Your task to perform on an android device: create a new album in the google photos Image 0: 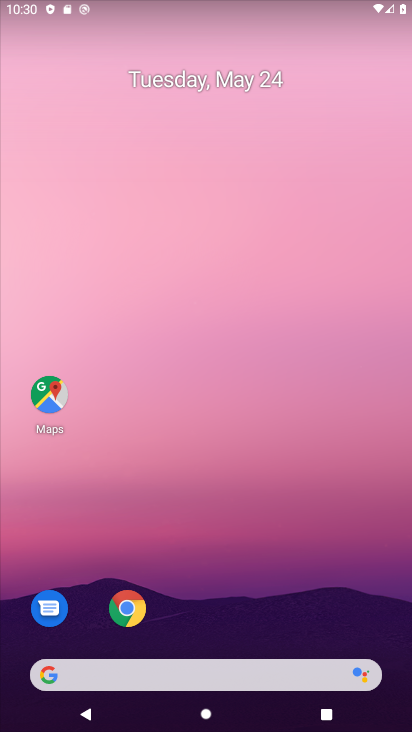
Step 0: drag from (388, 628) to (299, 152)
Your task to perform on an android device: create a new album in the google photos Image 1: 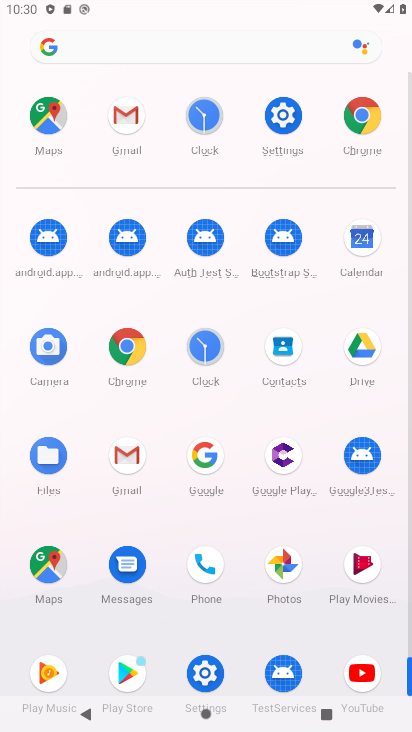
Step 1: click (283, 562)
Your task to perform on an android device: create a new album in the google photos Image 2: 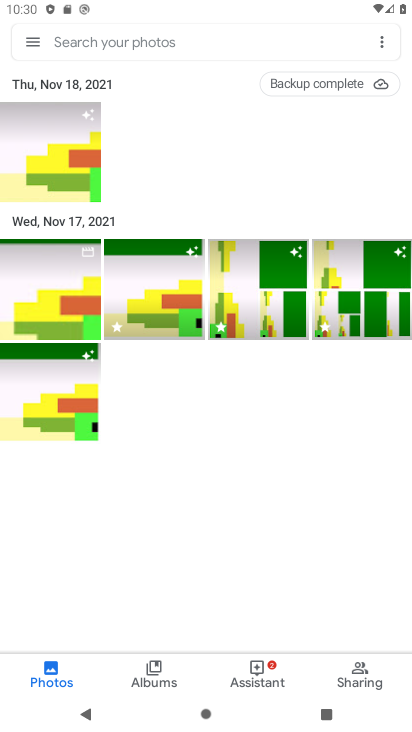
Step 2: click (149, 668)
Your task to perform on an android device: create a new album in the google photos Image 3: 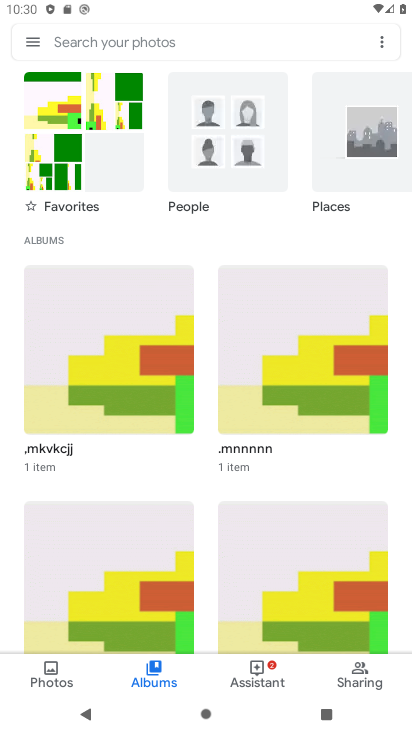
Step 3: drag from (207, 509) to (192, 66)
Your task to perform on an android device: create a new album in the google photos Image 4: 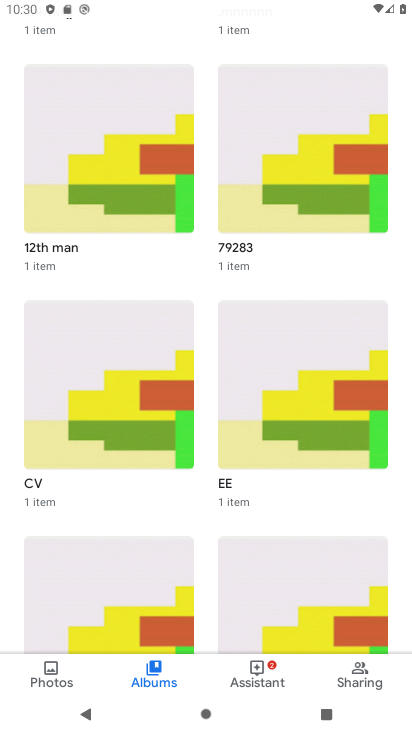
Step 4: click (49, 668)
Your task to perform on an android device: create a new album in the google photos Image 5: 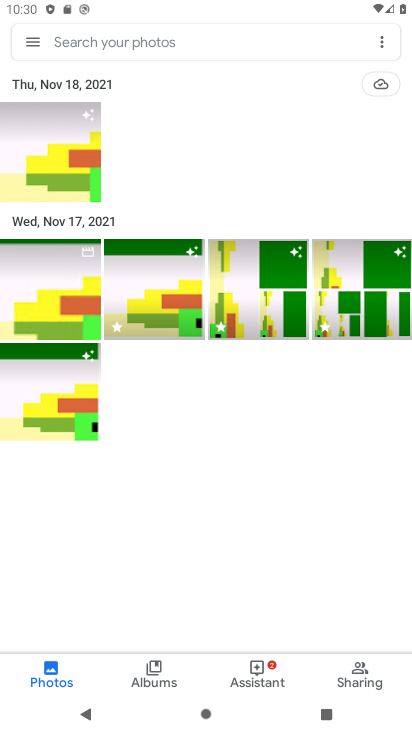
Step 5: click (381, 41)
Your task to perform on an android device: create a new album in the google photos Image 6: 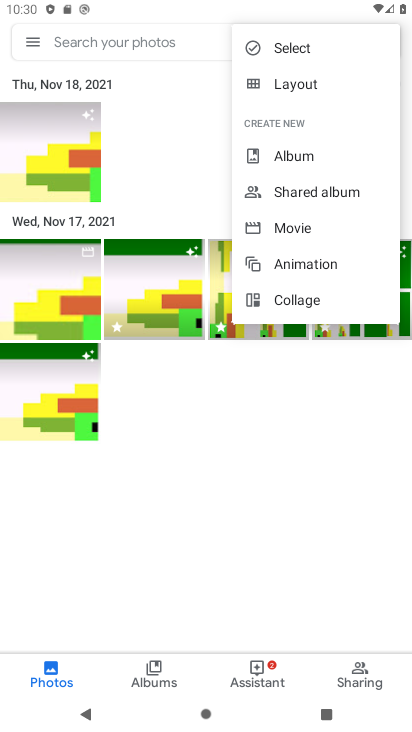
Step 6: click (293, 155)
Your task to perform on an android device: create a new album in the google photos Image 7: 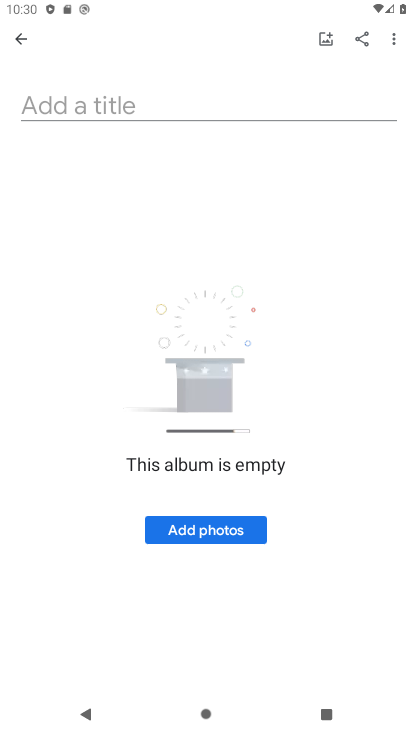
Step 7: click (56, 104)
Your task to perform on an android device: create a new album in the google photos Image 8: 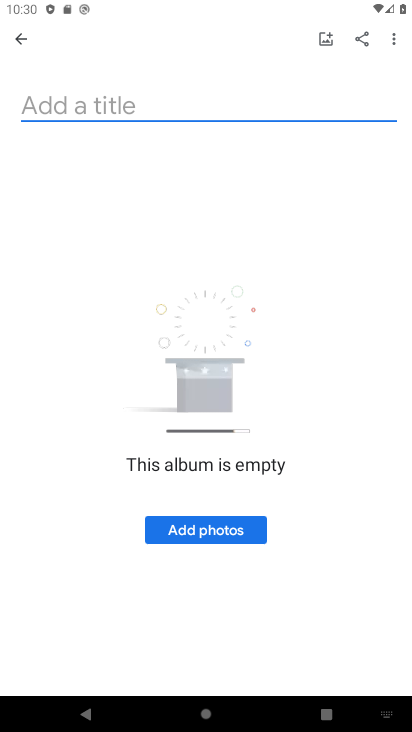
Step 8: type "hjjfdhf"
Your task to perform on an android device: create a new album in the google photos Image 9: 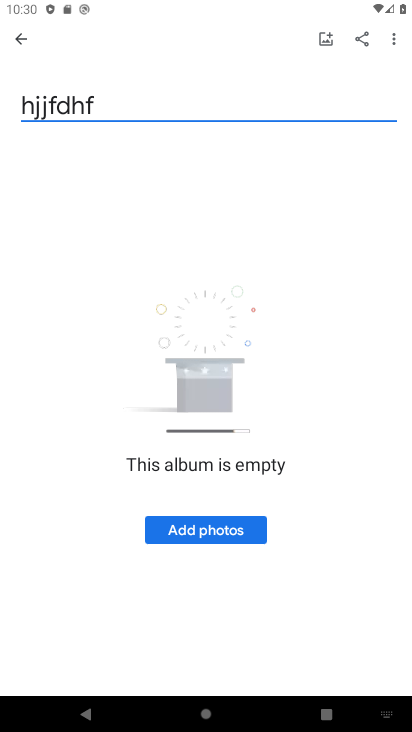
Step 9: click (204, 524)
Your task to perform on an android device: create a new album in the google photos Image 10: 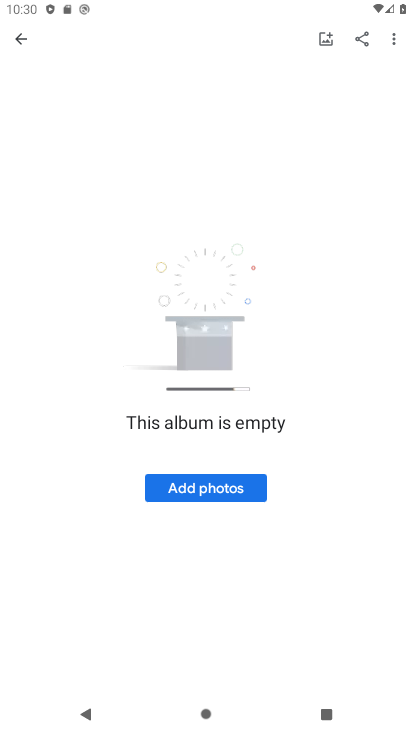
Step 10: click (202, 484)
Your task to perform on an android device: create a new album in the google photos Image 11: 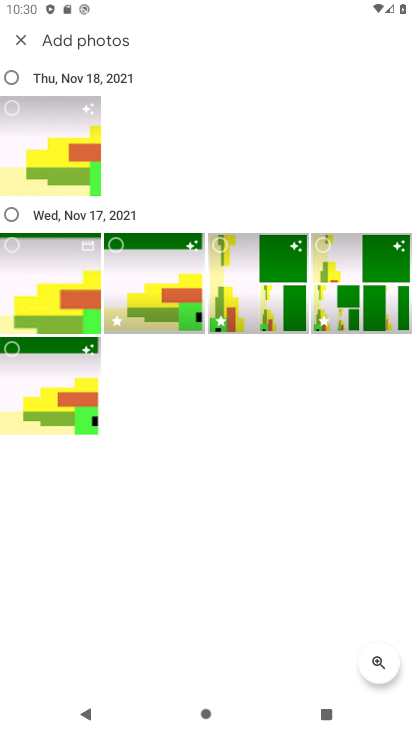
Step 11: click (9, 248)
Your task to perform on an android device: create a new album in the google photos Image 12: 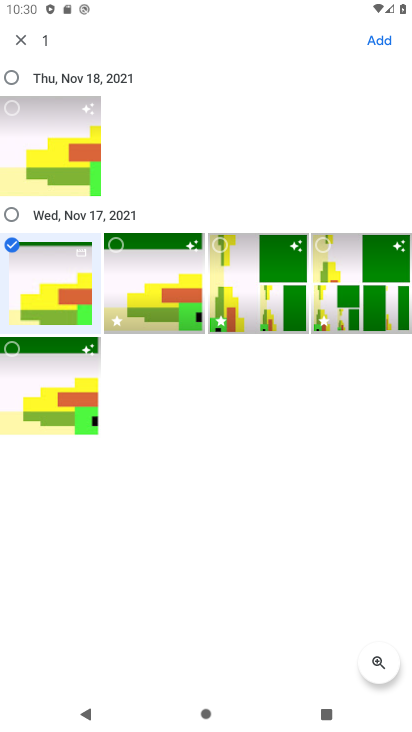
Step 12: click (120, 245)
Your task to perform on an android device: create a new album in the google photos Image 13: 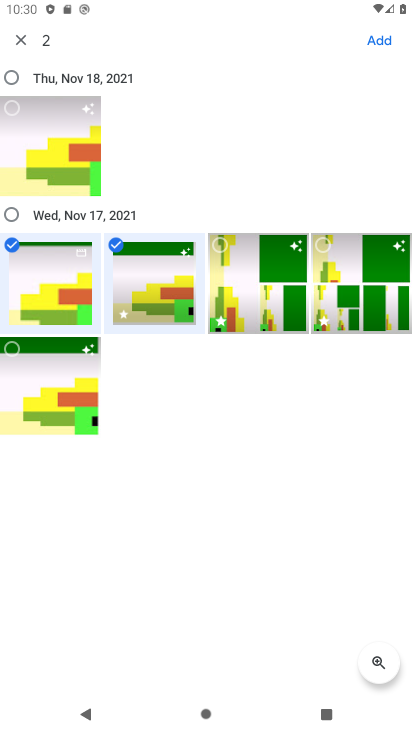
Step 13: click (378, 36)
Your task to perform on an android device: create a new album in the google photos Image 14: 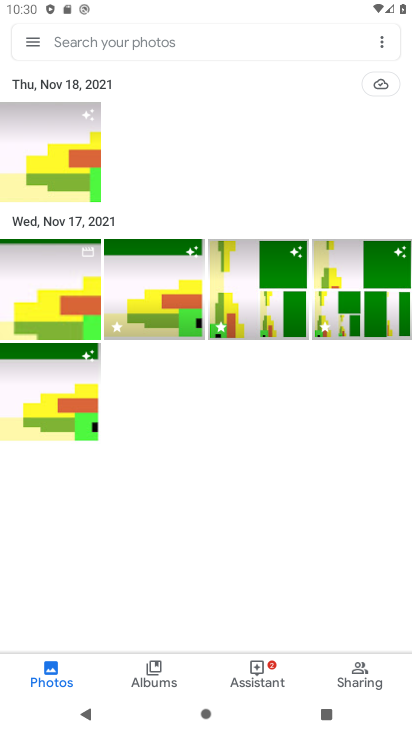
Step 14: task complete